Your task to perform on an android device: check the backup settings in the google photos Image 0: 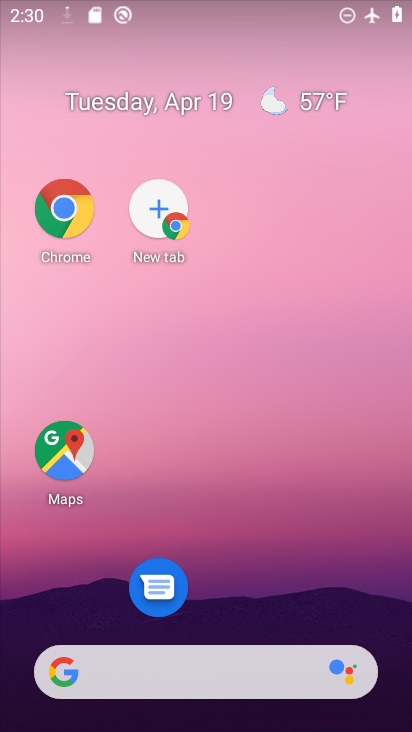
Step 0: drag from (268, 601) to (130, 103)
Your task to perform on an android device: check the backup settings in the google photos Image 1: 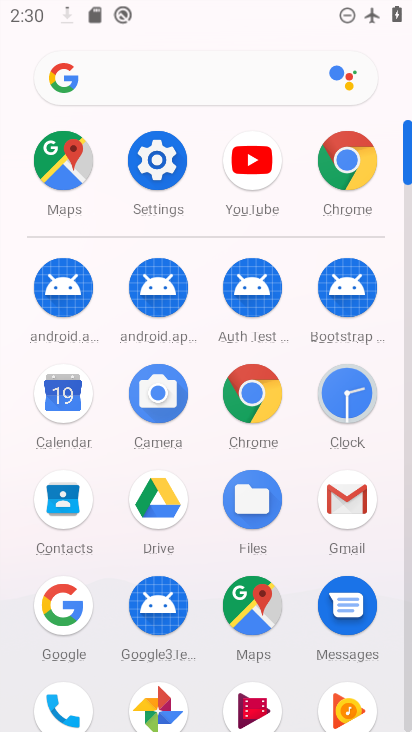
Step 1: click (164, 699)
Your task to perform on an android device: check the backup settings in the google photos Image 2: 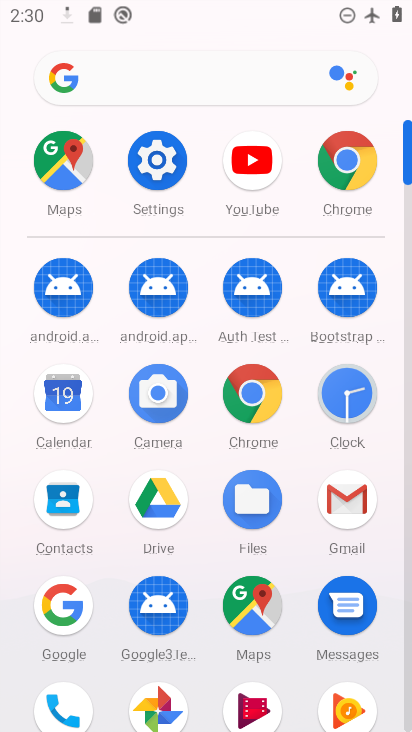
Step 2: click (159, 704)
Your task to perform on an android device: check the backup settings in the google photos Image 3: 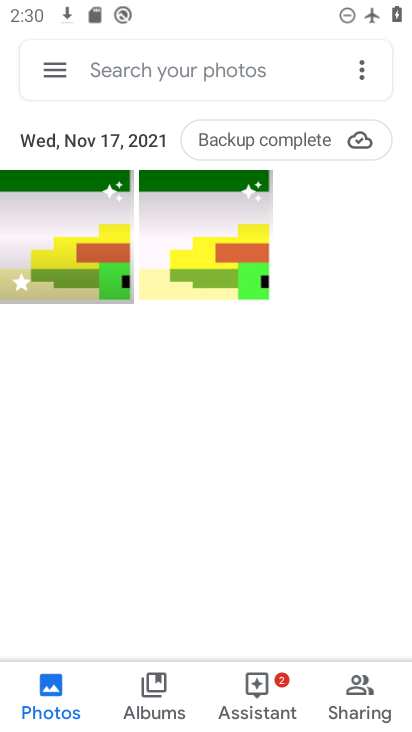
Step 3: click (304, 135)
Your task to perform on an android device: check the backup settings in the google photos Image 4: 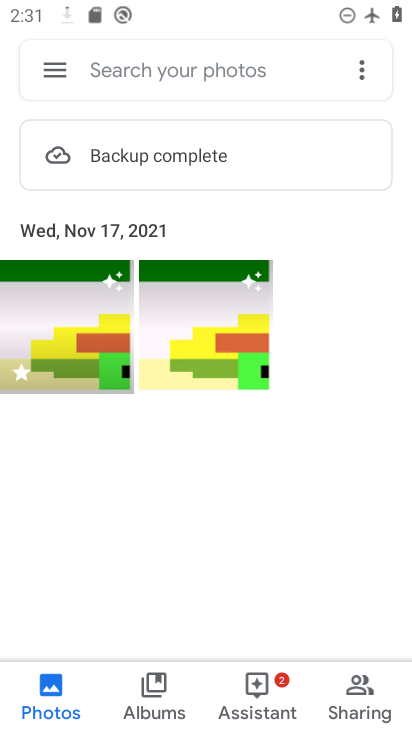
Step 4: click (56, 76)
Your task to perform on an android device: check the backup settings in the google photos Image 5: 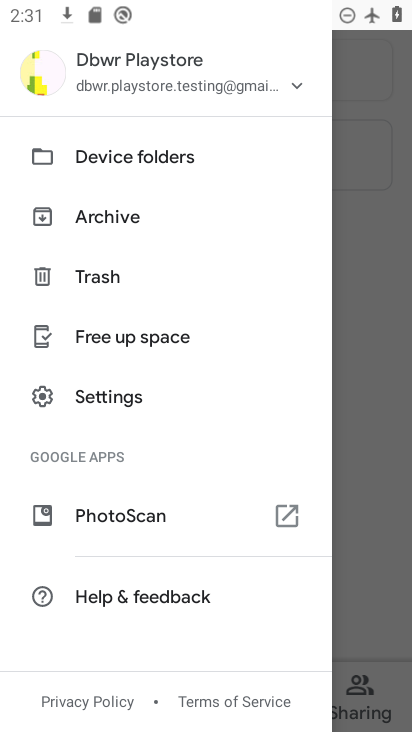
Step 5: click (99, 391)
Your task to perform on an android device: check the backup settings in the google photos Image 6: 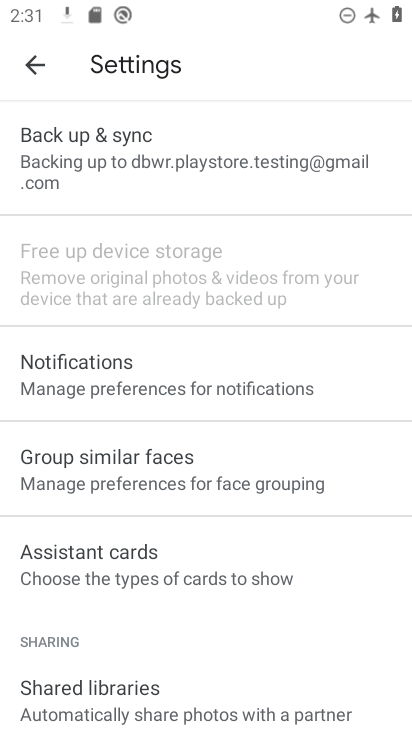
Step 6: click (90, 150)
Your task to perform on an android device: check the backup settings in the google photos Image 7: 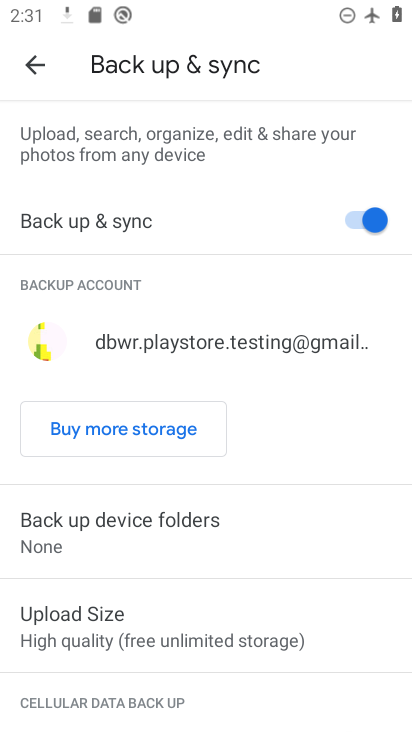
Step 7: task complete